Your task to perform on an android device: Open my contact list Image 0: 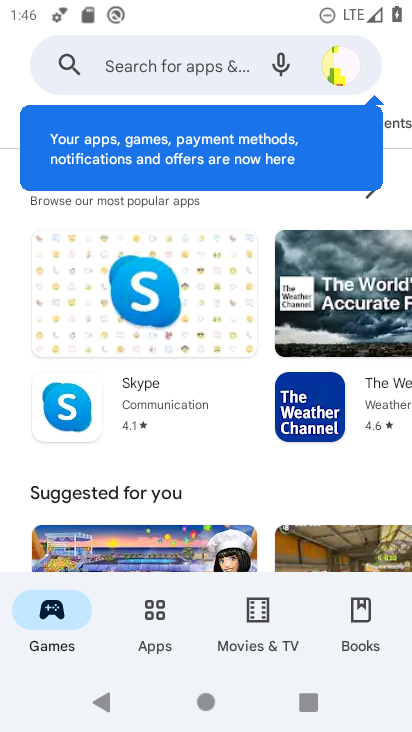
Step 0: press home button
Your task to perform on an android device: Open my contact list Image 1: 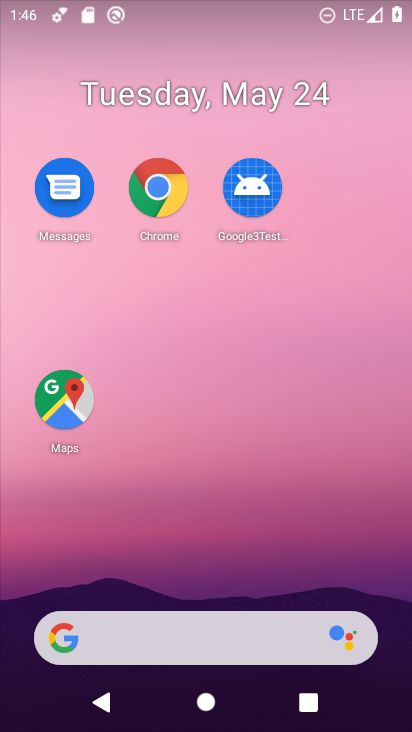
Step 1: drag from (184, 592) to (135, 8)
Your task to perform on an android device: Open my contact list Image 2: 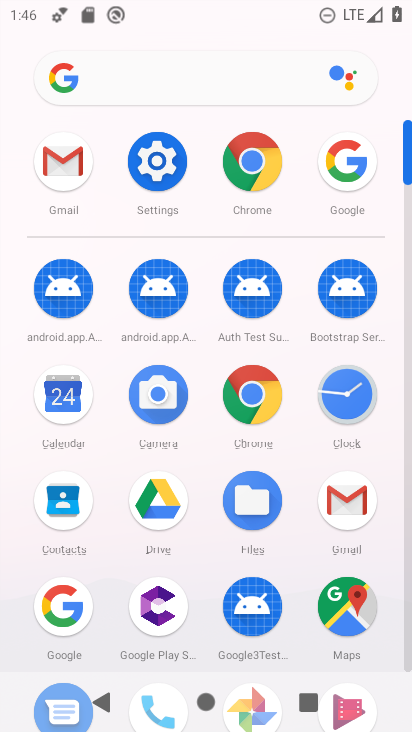
Step 2: click (53, 516)
Your task to perform on an android device: Open my contact list Image 3: 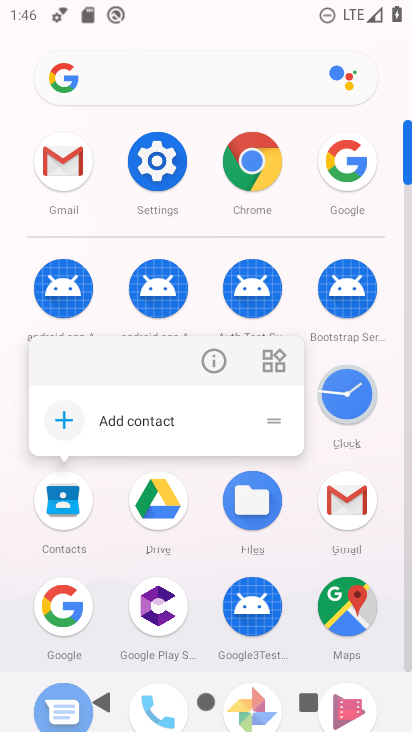
Step 3: click (56, 511)
Your task to perform on an android device: Open my contact list Image 4: 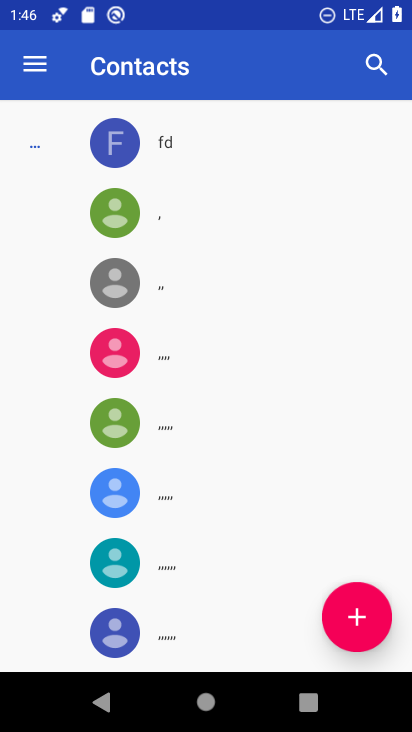
Step 4: task complete